Your task to perform on an android device: search for starred emails in the gmail app Image 0: 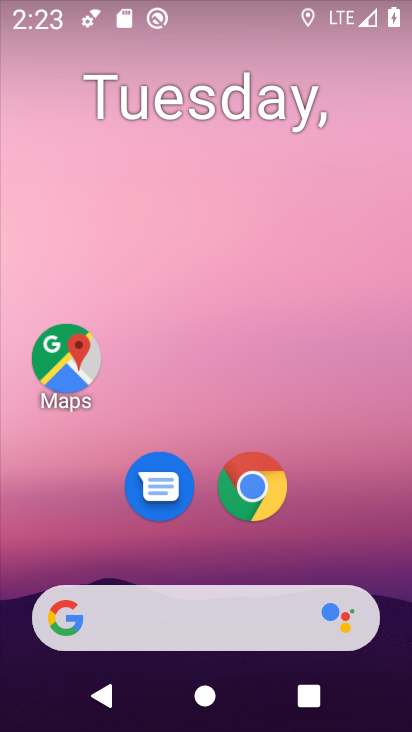
Step 0: press home button
Your task to perform on an android device: search for starred emails in the gmail app Image 1: 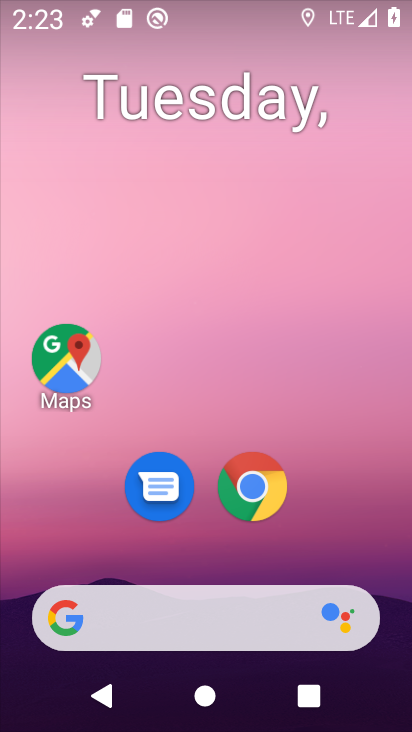
Step 1: drag from (319, 533) to (318, 136)
Your task to perform on an android device: search for starred emails in the gmail app Image 2: 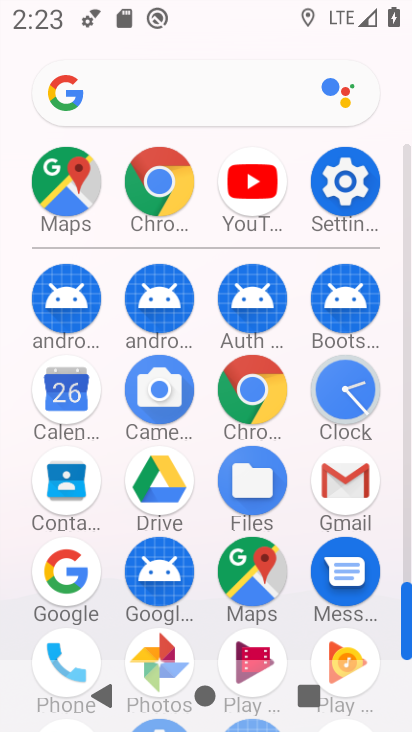
Step 2: click (353, 476)
Your task to perform on an android device: search for starred emails in the gmail app Image 3: 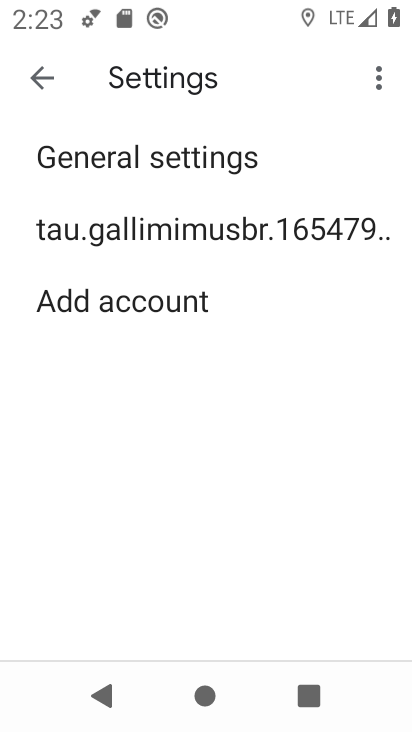
Step 3: press back button
Your task to perform on an android device: search for starred emails in the gmail app Image 4: 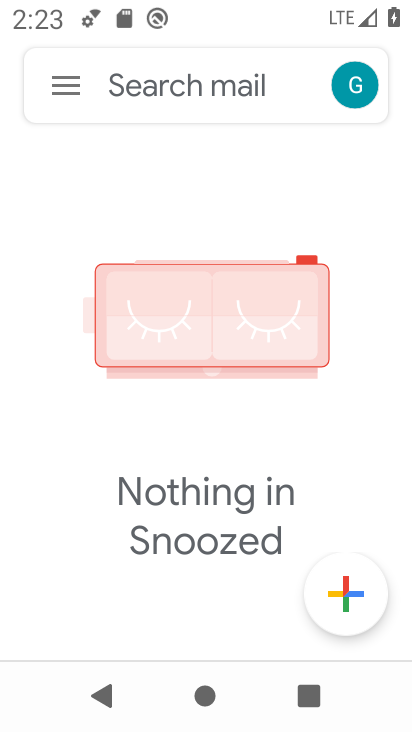
Step 4: click (59, 75)
Your task to perform on an android device: search for starred emails in the gmail app Image 5: 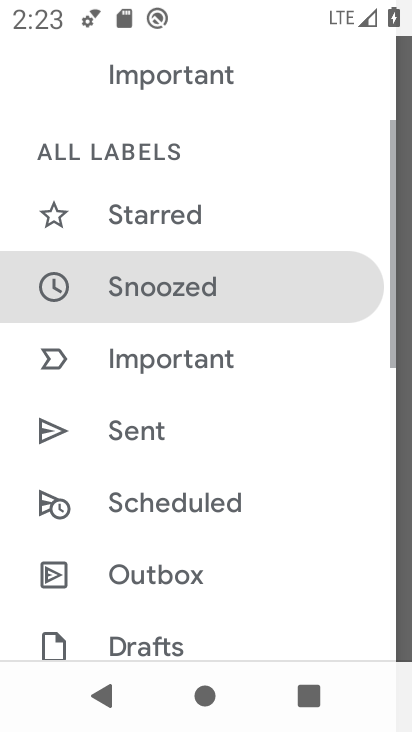
Step 5: drag from (331, 477) to (338, 358)
Your task to perform on an android device: search for starred emails in the gmail app Image 6: 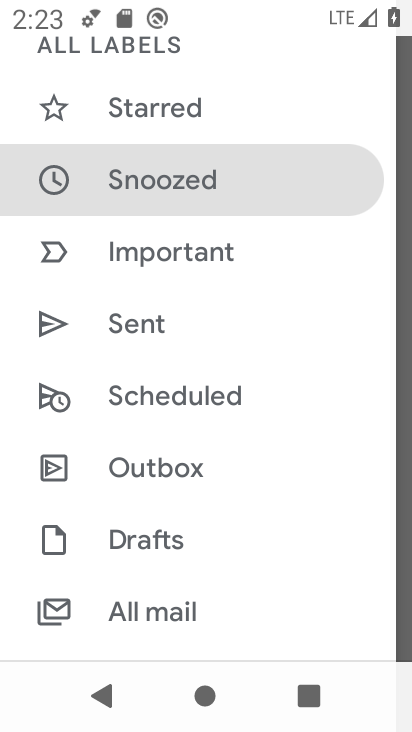
Step 6: drag from (330, 436) to (332, 325)
Your task to perform on an android device: search for starred emails in the gmail app Image 7: 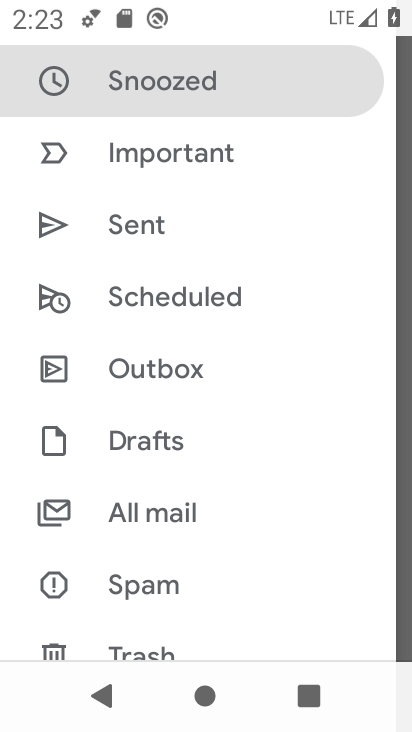
Step 7: drag from (318, 424) to (319, 333)
Your task to perform on an android device: search for starred emails in the gmail app Image 8: 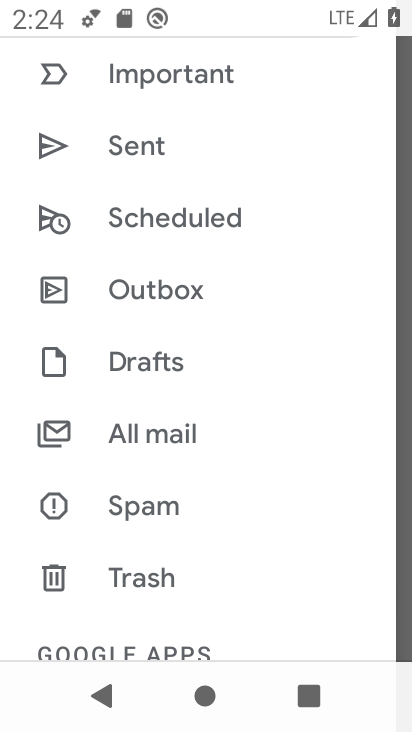
Step 8: drag from (314, 495) to (318, 418)
Your task to perform on an android device: search for starred emails in the gmail app Image 9: 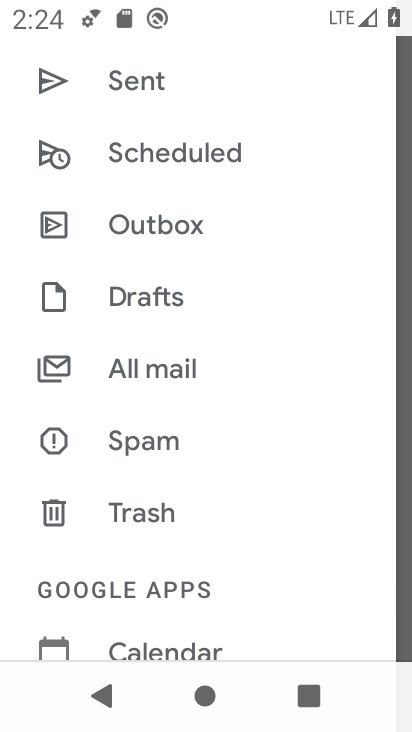
Step 9: drag from (256, 478) to (274, 351)
Your task to perform on an android device: search for starred emails in the gmail app Image 10: 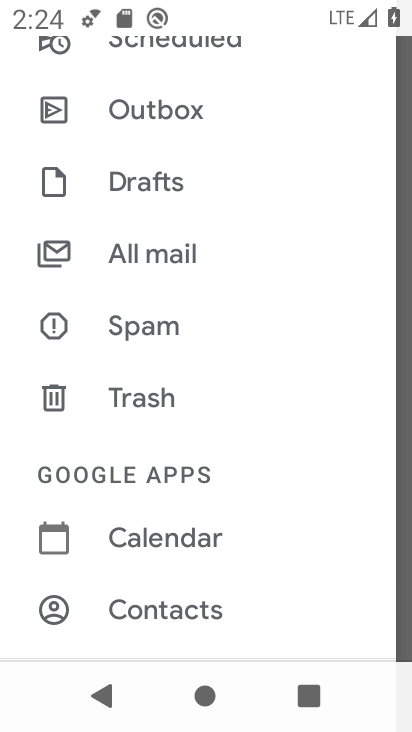
Step 10: drag from (306, 502) to (319, 406)
Your task to perform on an android device: search for starred emails in the gmail app Image 11: 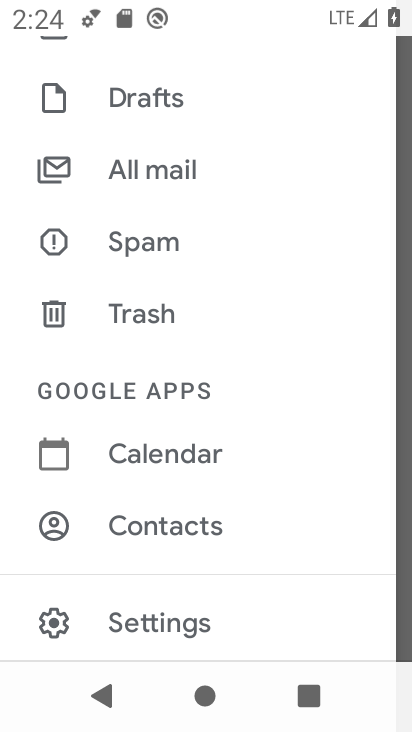
Step 11: drag from (325, 240) to (334, 382)
Your task to perform on an android device: search for starred emails in the gmail app Image 12: 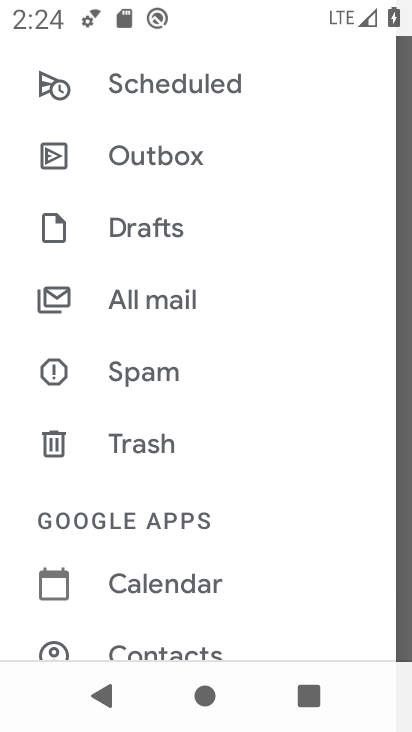
Step 12: drag from (271, 279) to (271, 371)
Your task to perform on an android device: search for starred emails in the gmail app Image 13: 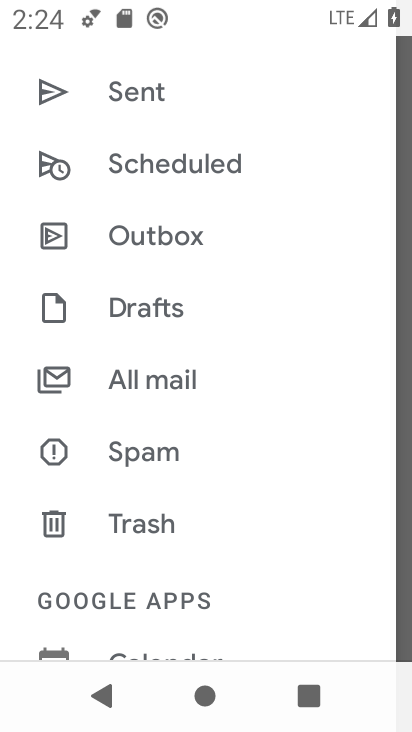
Step 13: drag from (297, 225) to (304, 317)
Your task to perform on an android device: search for starred emails in the gmail app Image 14: 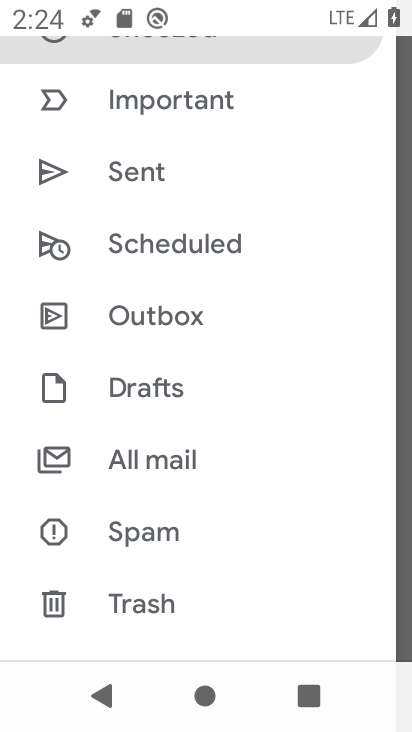
Step 14: drag from (317, 210) to (319, 439)
Your task to perform on an android device: search for starred emails in the gmail app Image 15: 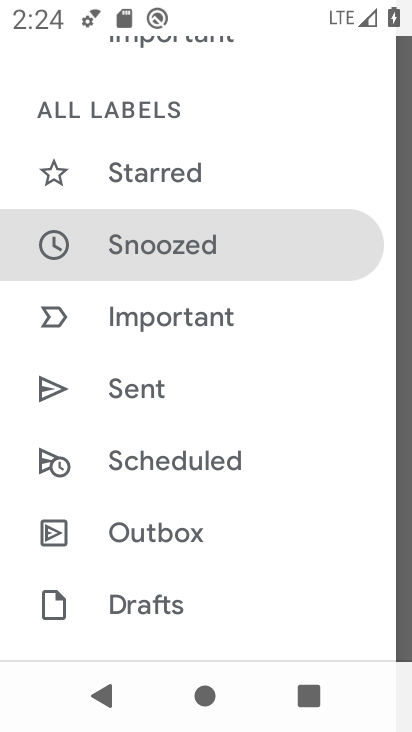
Step 15: drag from (300, 141) to (299, 328)
Your task to perform on an android device: search for starred emails in the gmail app Image 16: 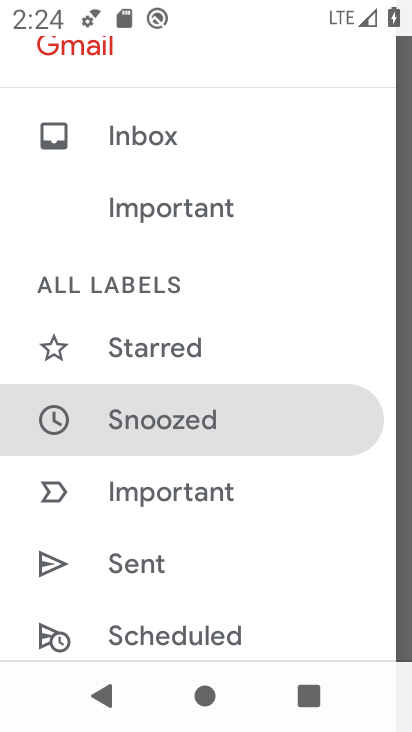
Step 16: click (221, 360)
Your task to perform on an android device: search for starred emails in the gmail app Image 17: 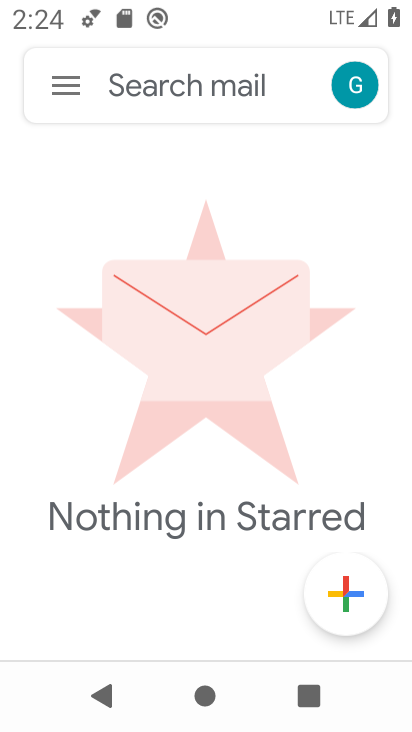
Step 17: task complete